Your task to perform on an android device: change notifications settings Image 0: 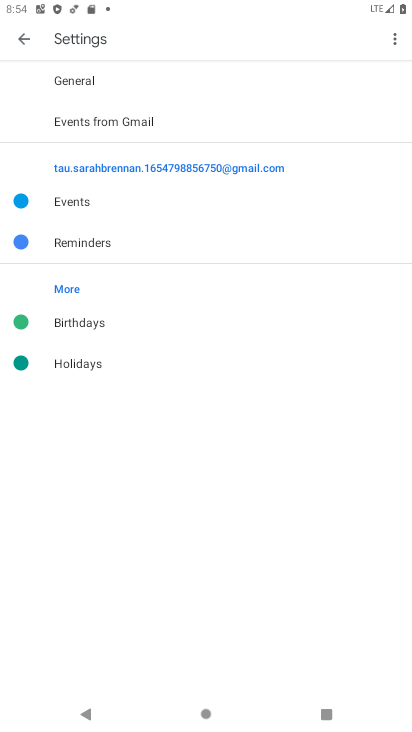
Step 0: press home button
Your task to perform on an android device: change notifications settings Image 1: 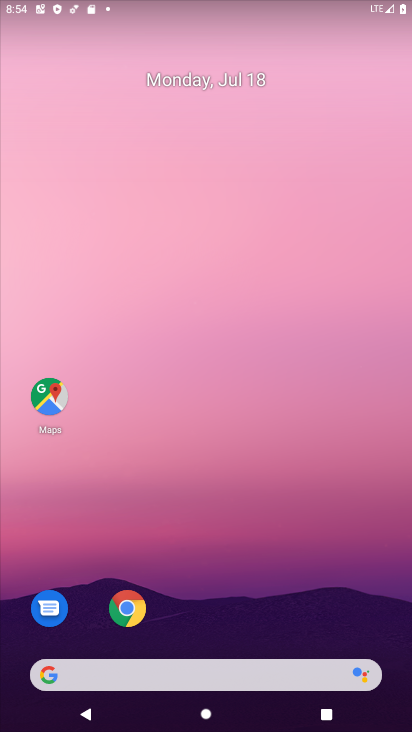
Step 1: drag from (33, 716) to (280, 271)
Your task to perform on an android device: change notifications settings Image 2: 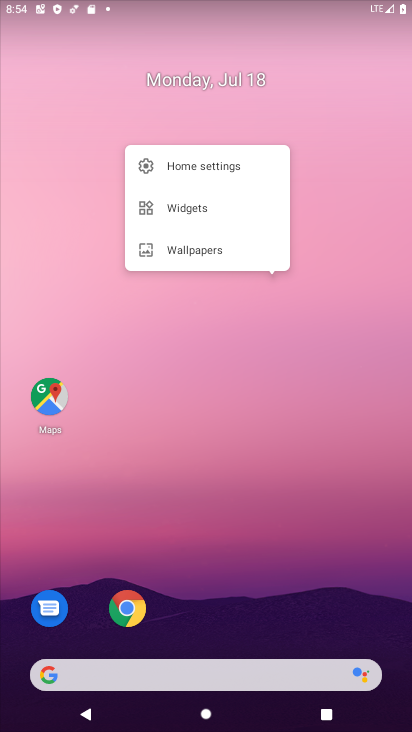
Step 2: drag from (34, 714) to (345, 41)
Your task to perform on an android device: change notifications settings Image 3: 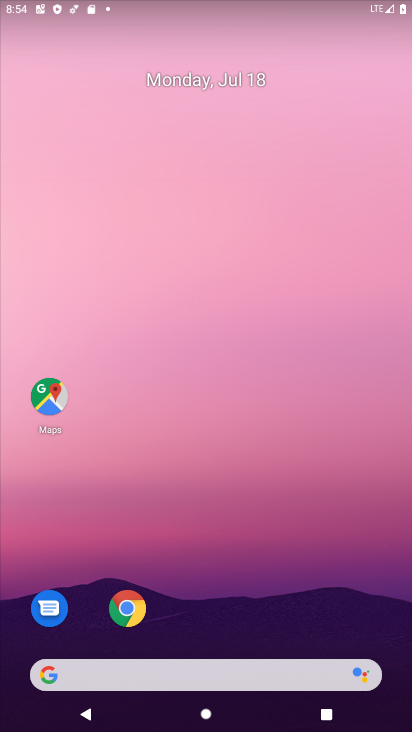
Step 3: drag from (58, 687) to (268, 250)
Your task to perform on an android device: change notifications settings Image 4: 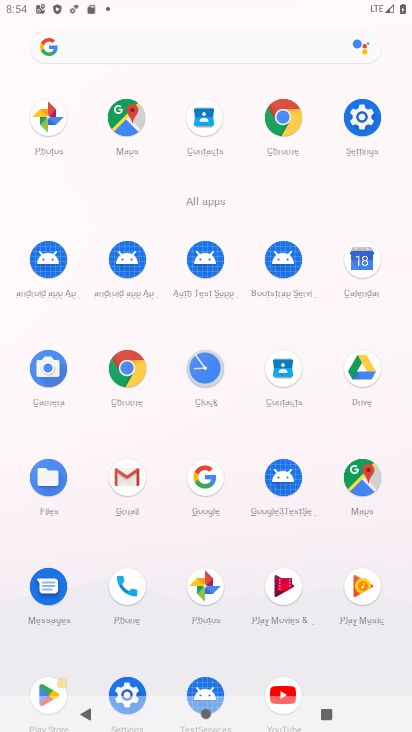
Step 4: click (126, 685)
Your task to perform on an android device: change notifications settings Image 5: 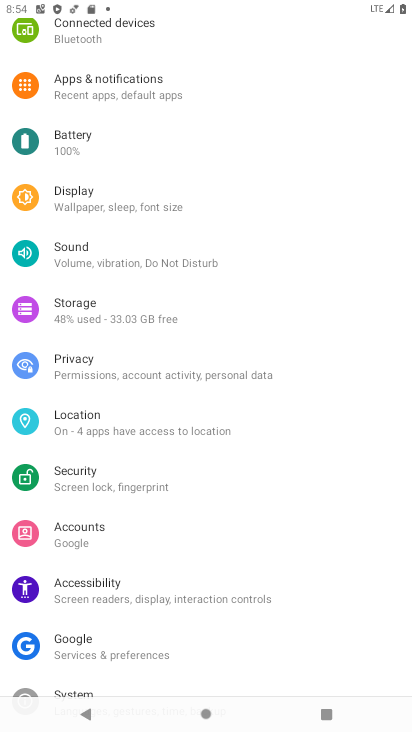
Step 5: click (124, 80)
Your task to perform on an android device: change notifications settings Image 6: 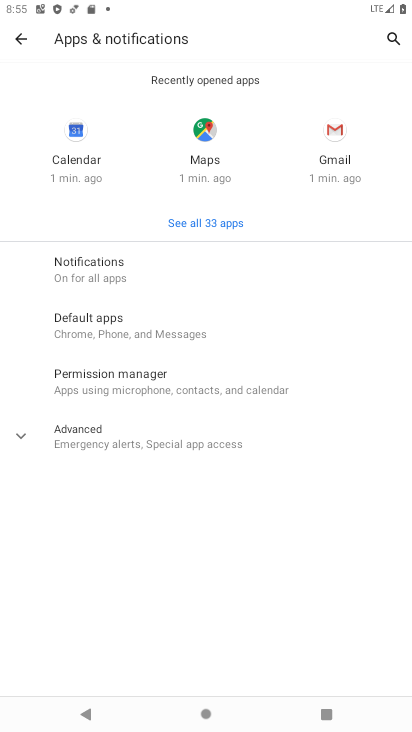
Step 6: click (117, 266)
Your task to perform on an android device: change notifications settings Image 7: 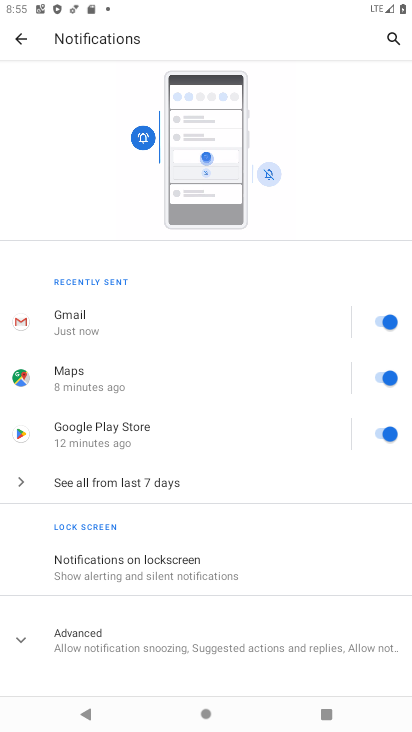
Step 7: task complete